Your task to perform on an android device: Check the weather Image 0: 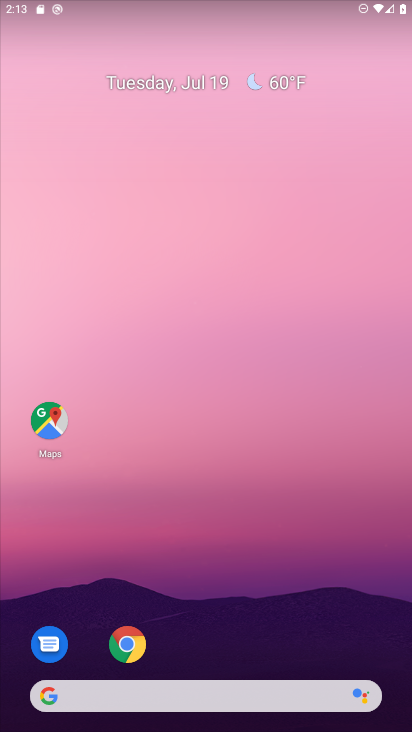
Step 0: click (239, 687)
Your task to perform on an android device: Check the weather Image 1: 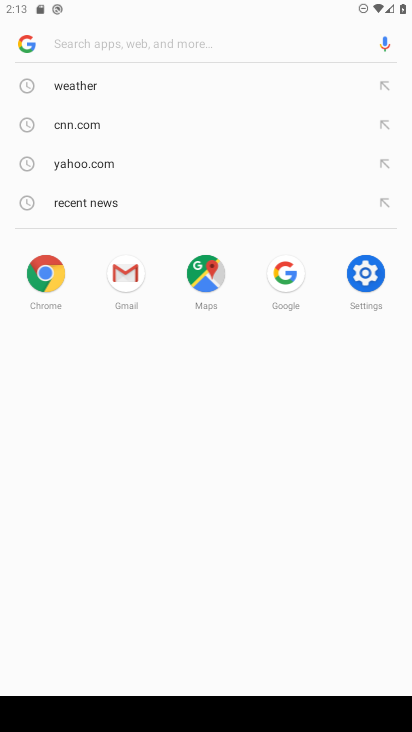
Step 1: click (79, 87)
Your task to perform on an android device: Check the weather Image 2: 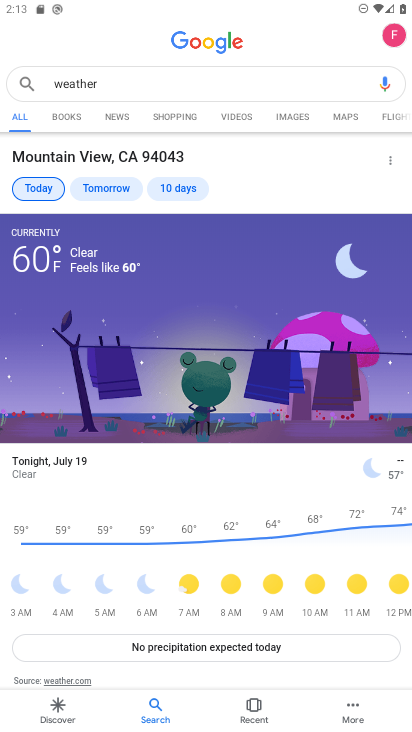
Step 2: click (181, 195)
Your task to perform on an android device: Check the weather Image 3: 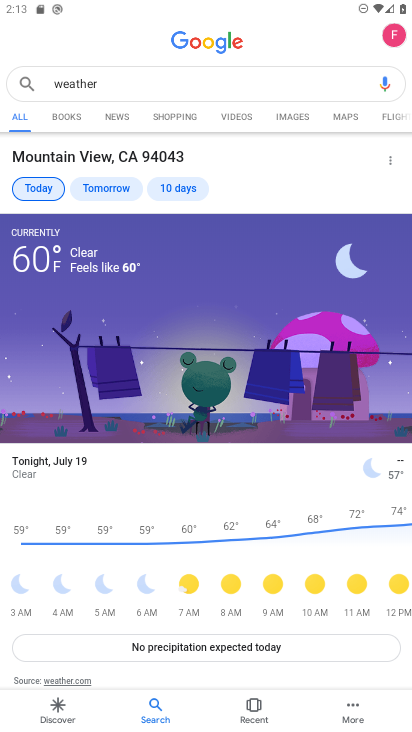
Step 3: click (182, 191)
Your task to perform on an android device: Check the weather Image 4: 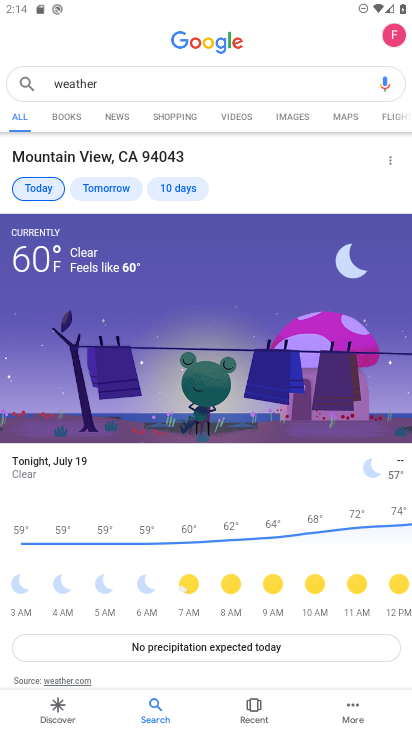
Step 4: click (96, 180)
Your task to perform on an android device: Check the weather Image 5: 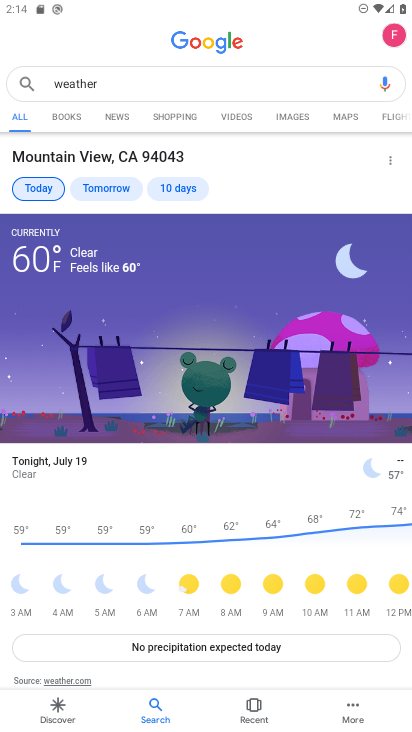
Step 5: task complete